Your task to perform on an android device: Look up the top rated headphones on Amazon. Image 0: 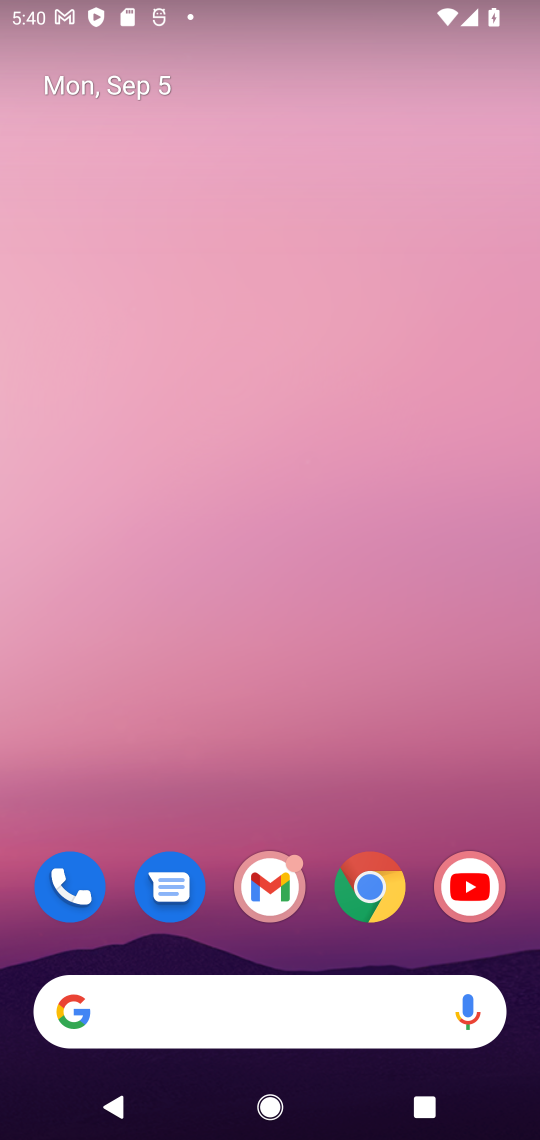
Step 0: drag from (334, 677) to (364, 95)
Your task to perform on an android device: Look up the top rated headphones on Amazon. Image 1: 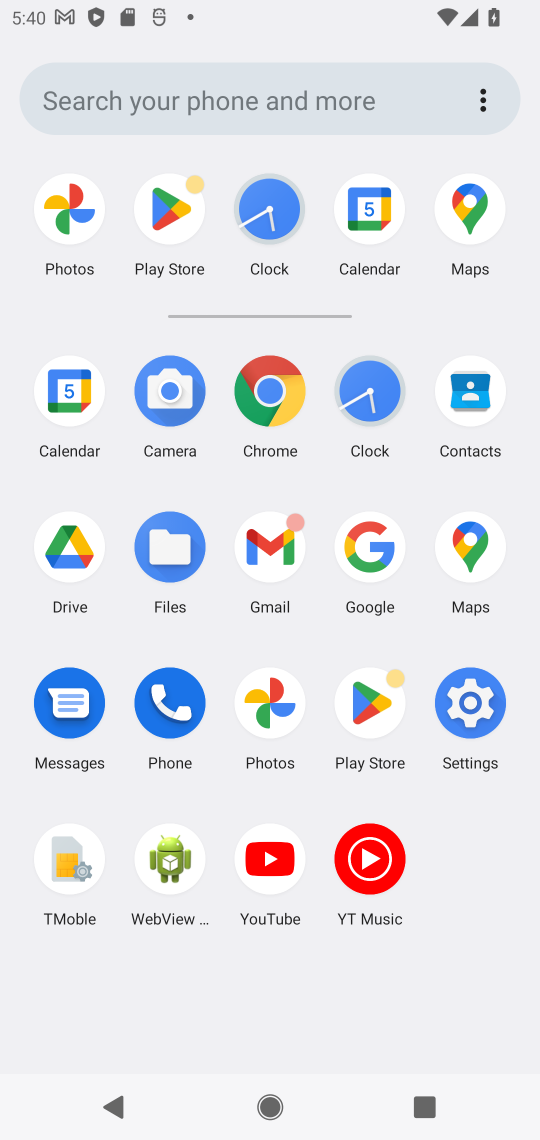
Step 1: click (264, 384)
Your task to perform on an android device: Look up the top rated headphones on Amazon. Image 2: 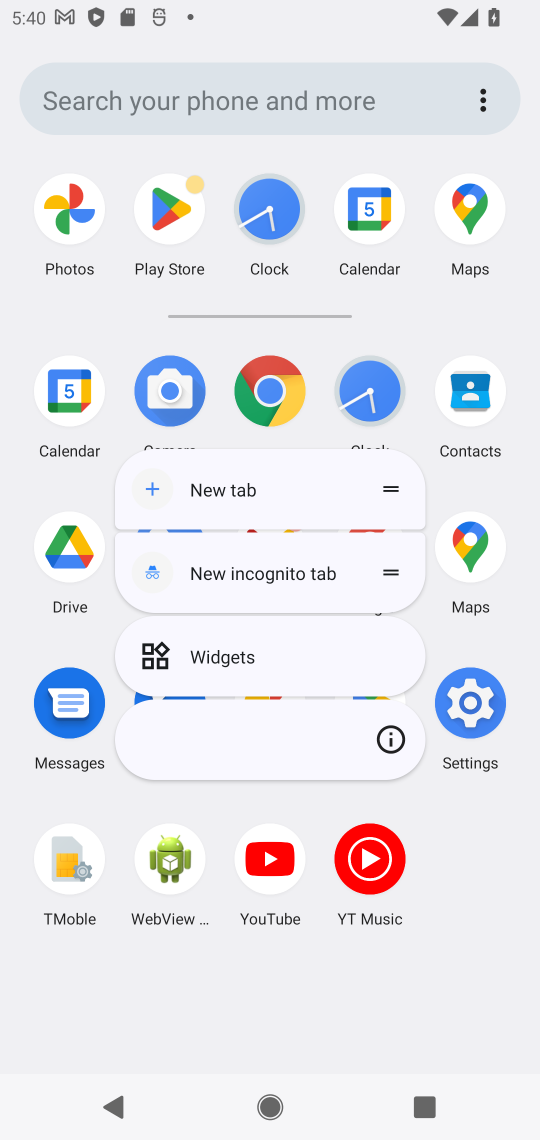
Step 2: click (269, 390)
Your task to perform on an android device: Look up the top rated headphones on Amazon. Image 3: 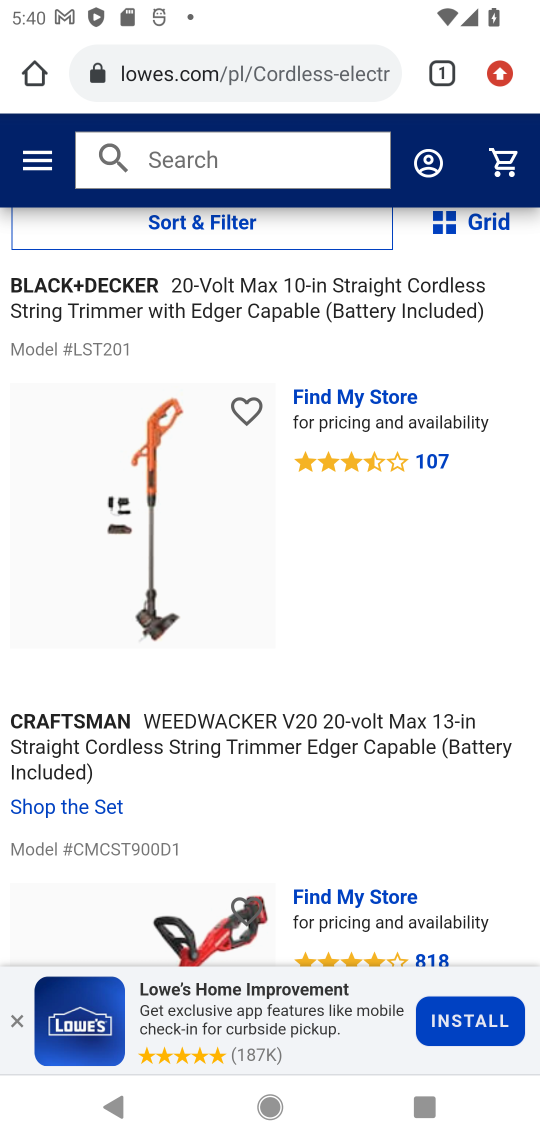
Step 3: click (318, 65)
Your task to perform on an android device: Look up the top rated headphones on Amazon. Image 4: 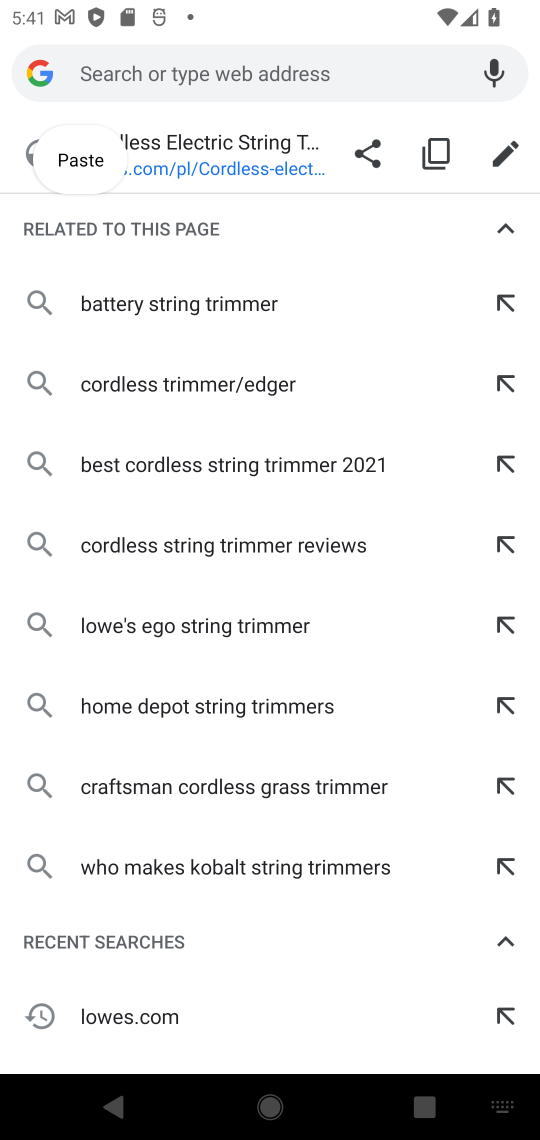
Step 4: type "top rated headphones on Amazon"
Your task to perform on an android device: Look up the top rated headphones on Amazon. Image 5: 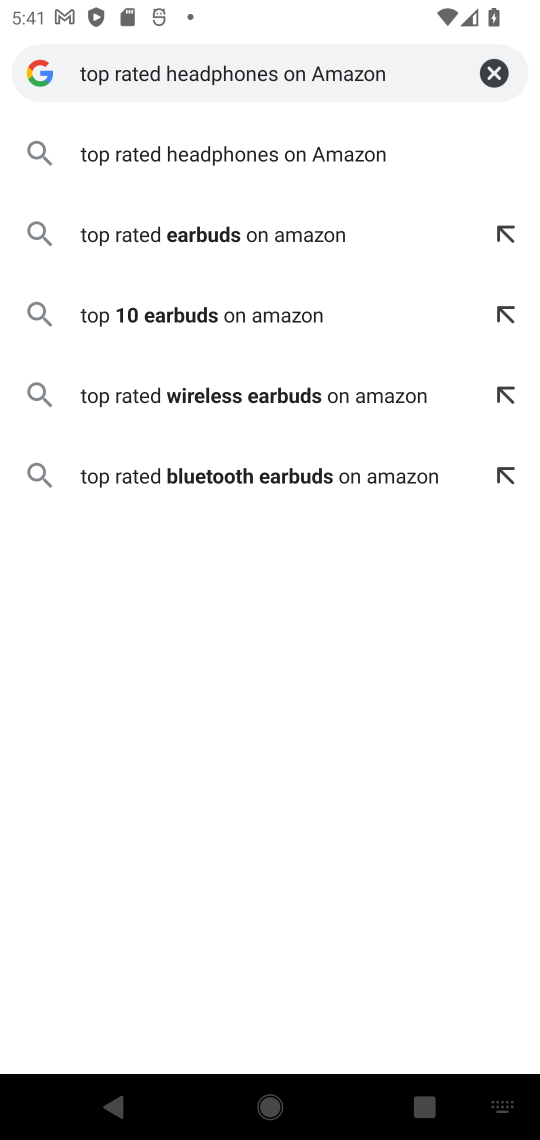
Step 5: press enter
Your task to perform on an android device: Look up the top rated headphones on Amazon. Image 6: 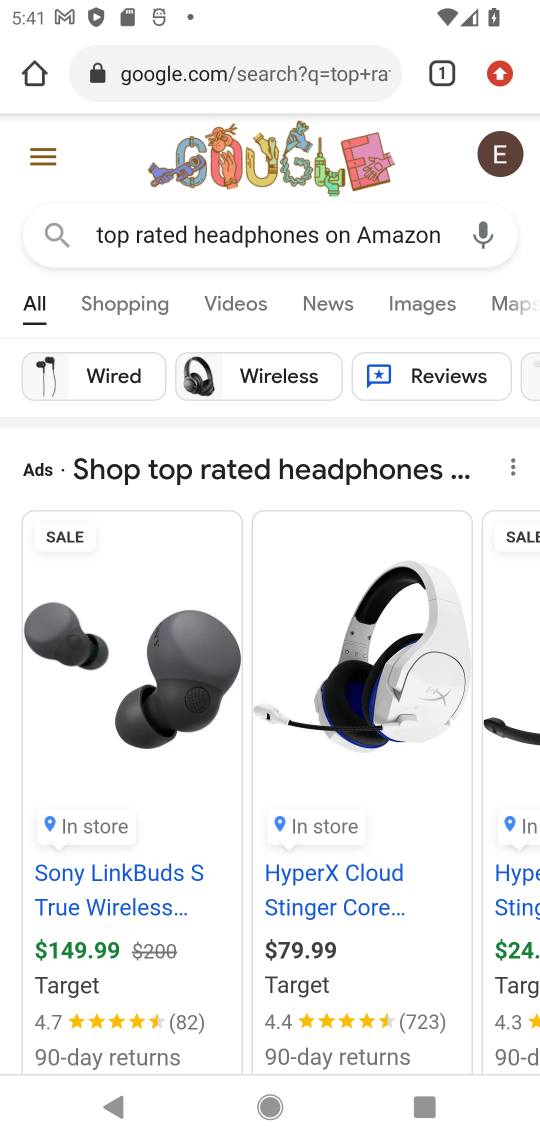
Step 6: drag from (340, 913) to (368, 97)
Your task to perform on an android device: Look up the top rated headphones on Amazon. Image 7: 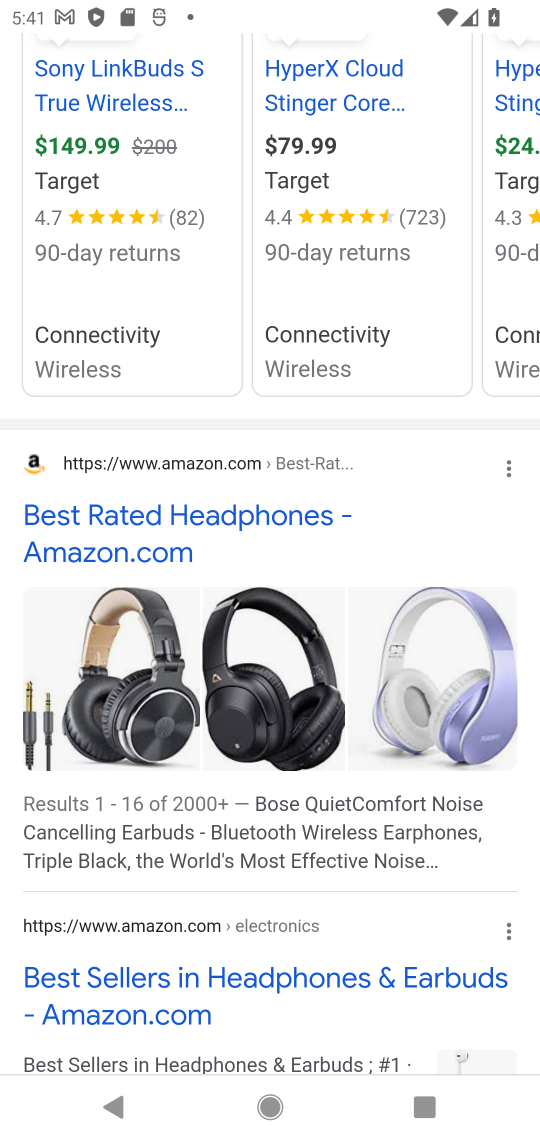
Step 7: click (156, 529)
Your task to perform on an android device: Look up the top rated headphones on Amazon. Image 8: 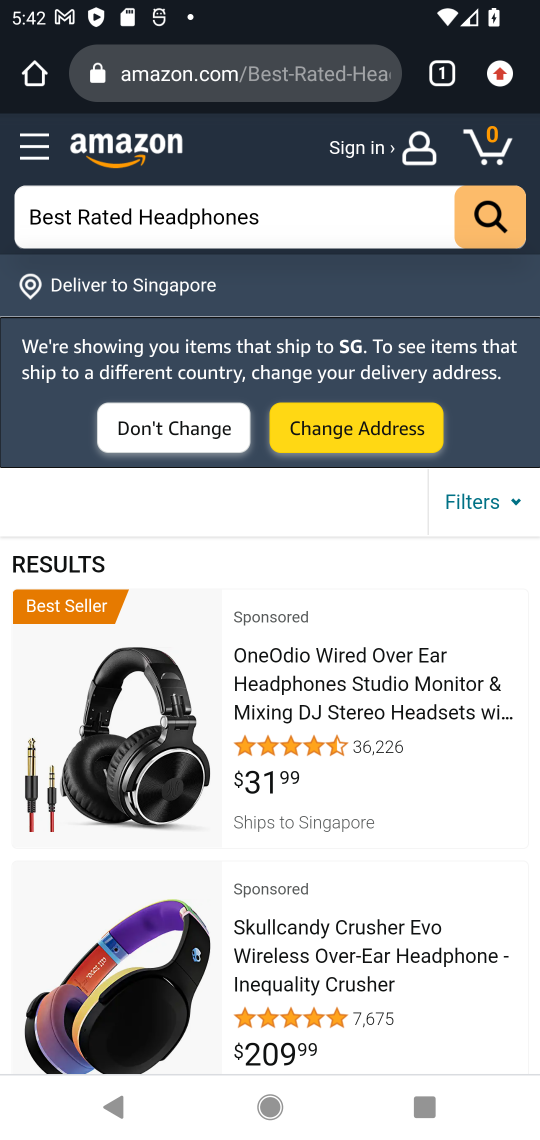
Step 8: task complete